Your task to perform on an android device: turn off translation in the chrome app Image 0: 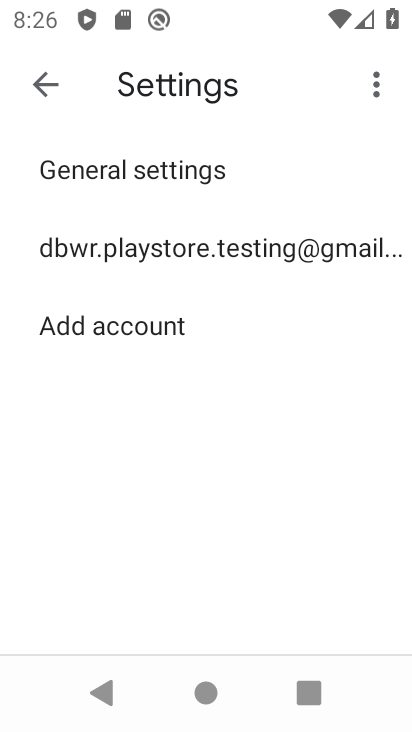
Step 0: press home button
Your task to perform on an android device: turn off translation in the chrome app Image 1: 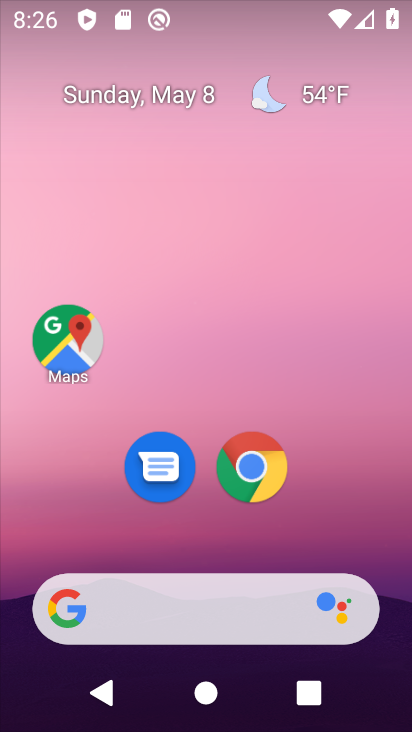
Step 1: click (249, 467)
Your task to perform on an android device: turn off translation in the chrome app Image 2: 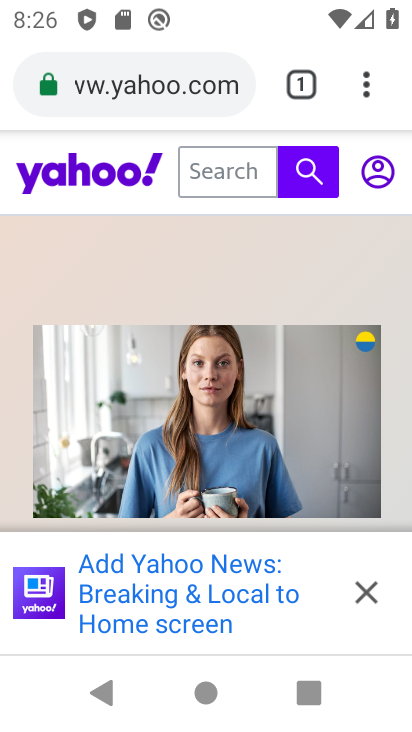
Step 2: click (368, 90)
Your task to perform on an android device: turn off translation in the chrome app Image 3: 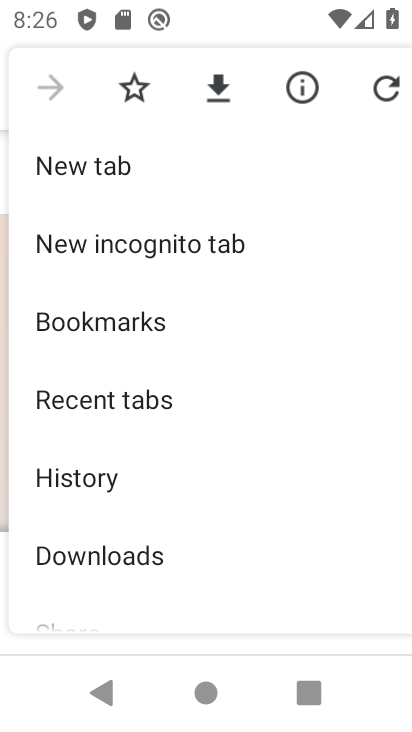
Step 3: drag from (212, 598) to (286, 250)
Your task to perform on an android device: turn off translation in the chrome app Image 4: 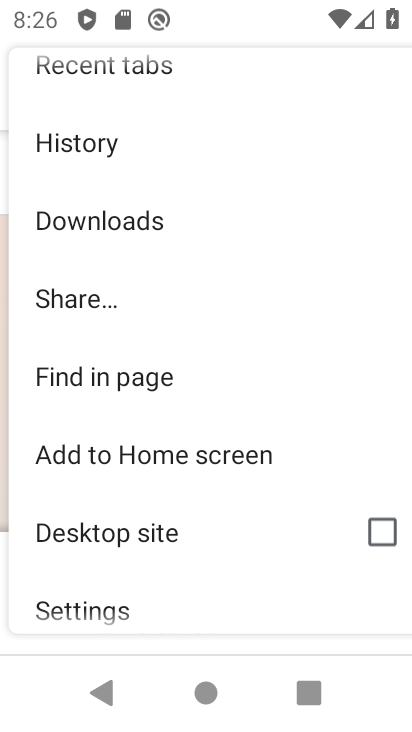
Step 4: drag from (283, 520) to (249, 160)
Your task to perform on an android device: turn off translation in the chrome app Image 5: 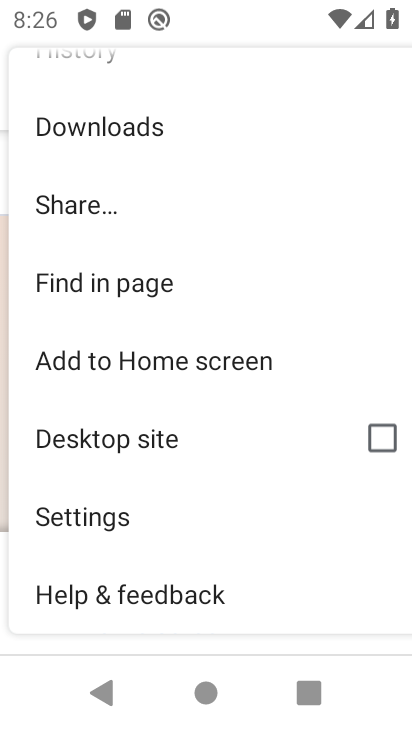
Step 5: click (66, 527)
Your task to perform on an android device: turn off translation in the chrome app Image 6: 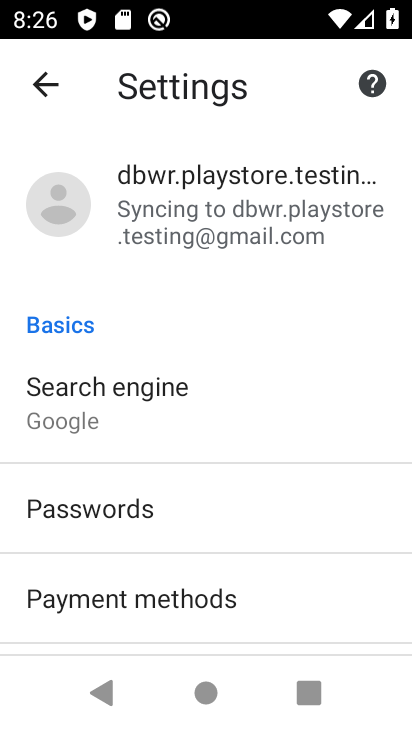
Step 6: drag from (294, 597) to (271, 231)
Your task to perform on an android device: turn off translation in the chrome app Image 7: 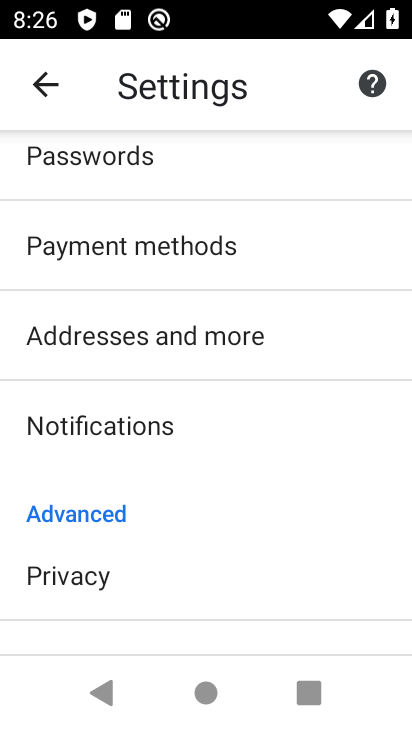
Step 7: drag from (235, 506) to (321, 149)
Your task to perform on an android device: turn off translation in the chrome app Image 8: 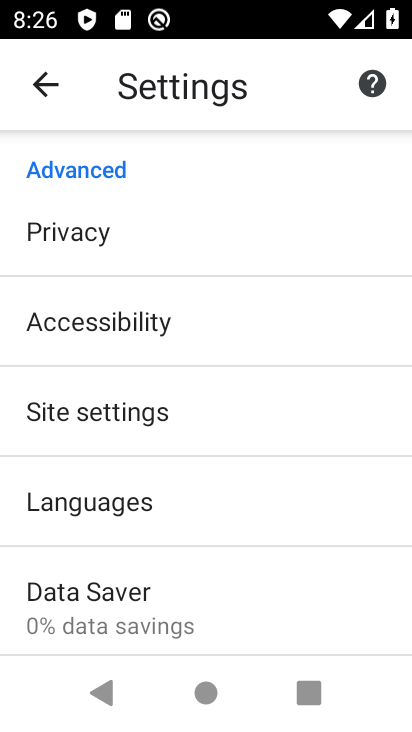
Step 8: click (59, 509)
Your task to perform on an android device: turn off translation in the chrome app Image 9: 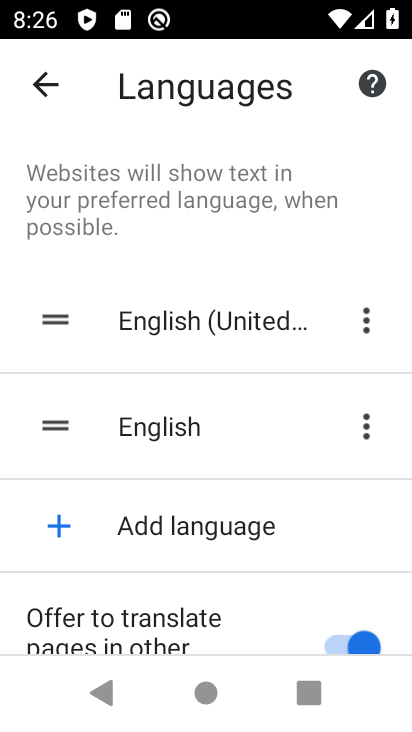
Step 9: drag from (275, 592) to (292, 200)
Your task to perform on an android device: turn off translation in the chrome app Image 10: 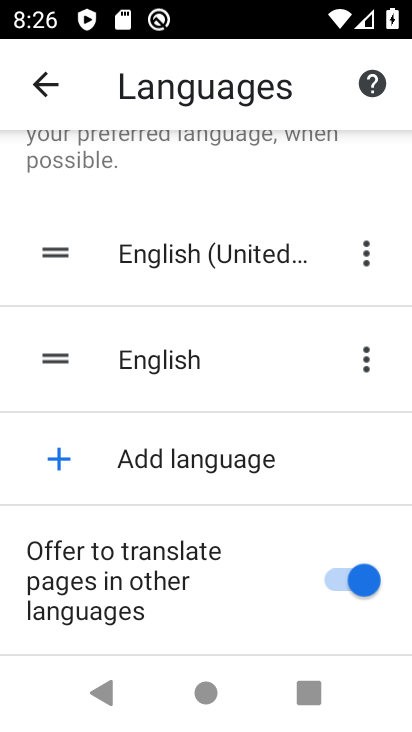
Step 10: click (327, 584)
Your task to perform on an android device: turn off translation in the chrome app Image 11: 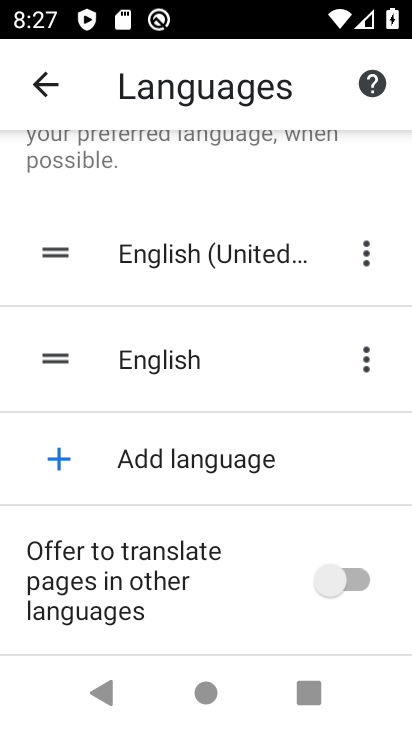
Step 11: task complete